Your task to perform on an android device: move a message to another label in the gmail app Image 0: 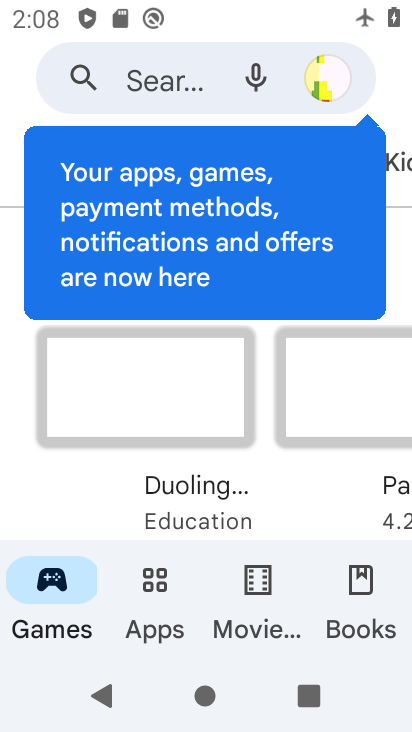
Step 0: press home button
Your task to perform on an android device: move a message to another label in the gmail app Image 1: 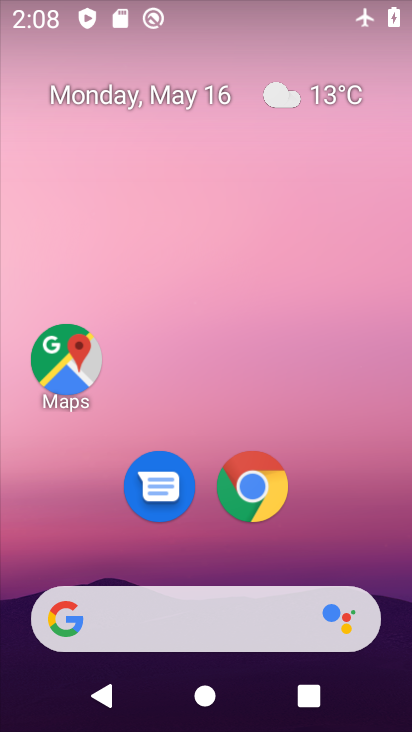
Step 1: drag from (356, 480) to (324, 127)
Your task to perform on an android device: move a message to another label in the gmail app Image 2: 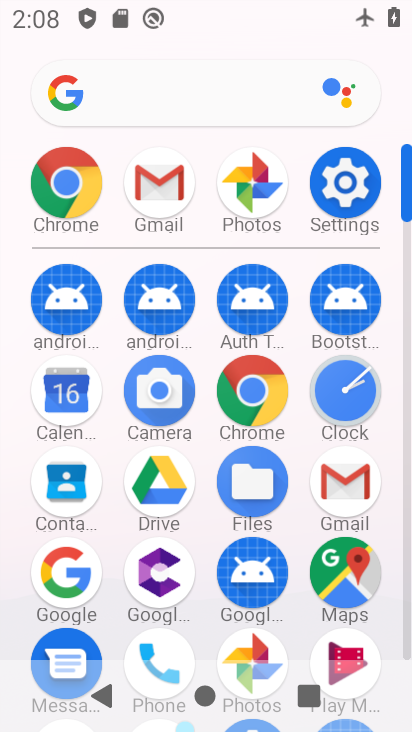
Step 2: click (121, 197)
Your task to perform on an android device: move a message to another label in the gmail app Image 3: 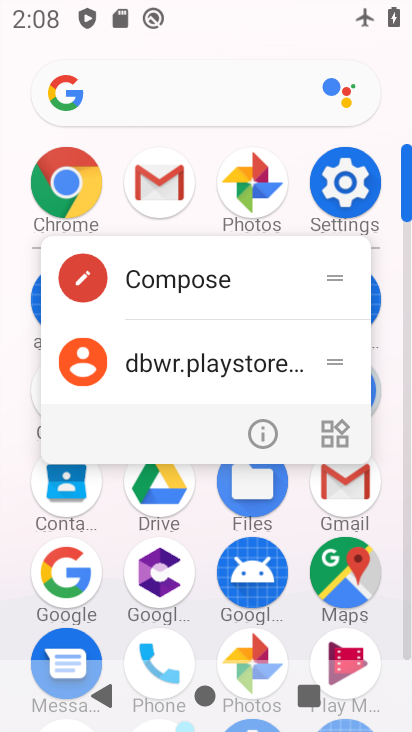
Step 3: click (141, 174)
Your task to perform on an android device: move a message to another label in the gmail app Image 4: 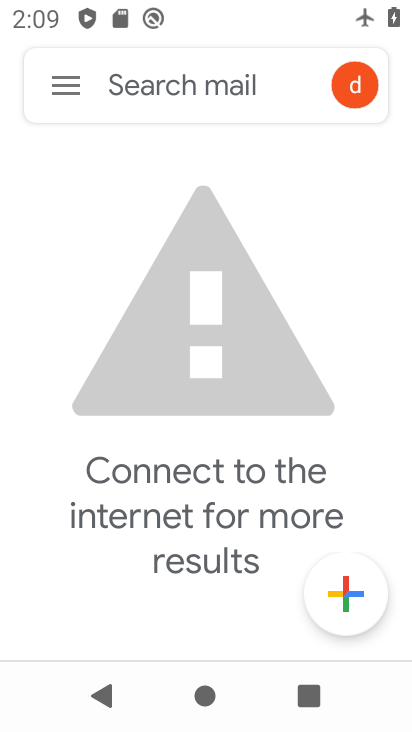
Step 4: task complete